Your task to perform on an android device: turn off improve location accuracy Image 0: 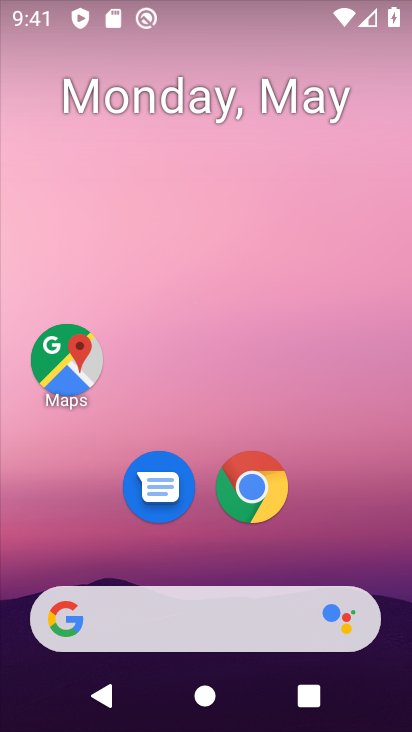
Step 0: drag from (291, 540) to (287, 0)
Your task to perform on an android device: turn off improve location accuracy Image 1: 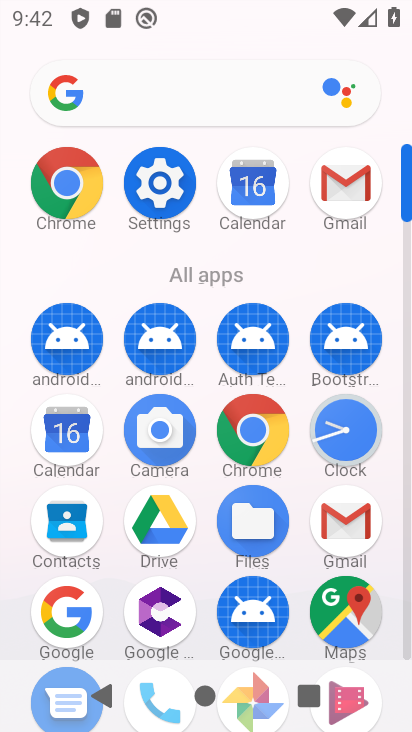
Step 1: click (155, 199)
Your task to perform on an android device: turn off improve location accuracy Image 2: 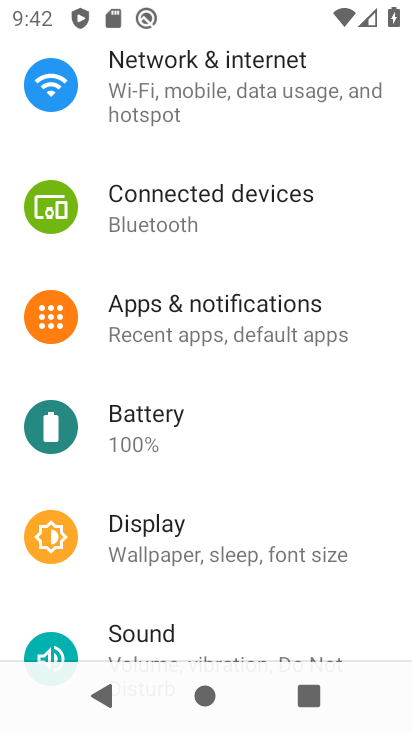
Step 2: drag from (189, 580) to (165, 414)
Your task to perform on an android device: turn off improve location accuracy Image 3: 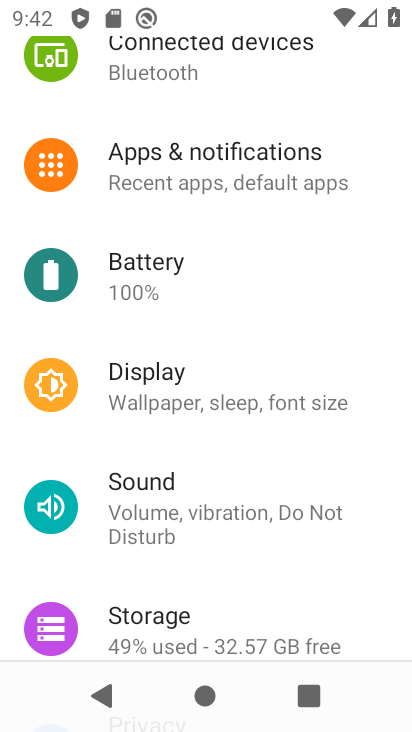
Step 3: drag from (165, 544) to (180, 348)
Your task to perform on an android device: turn off improve location accuracy Image 4: 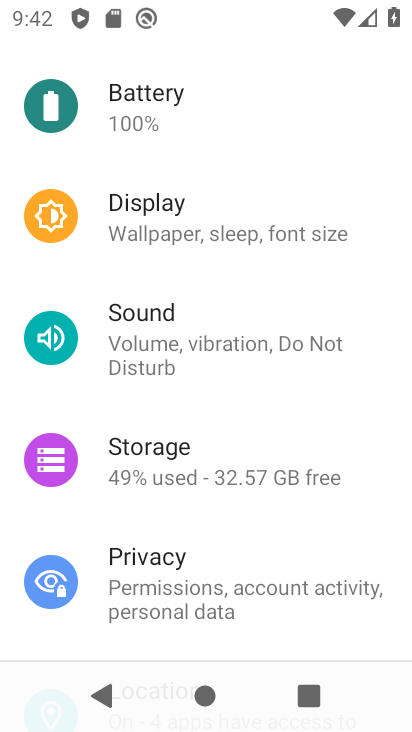
Step 4: drag from (140, 604) to (152, 331)
Your task to perform on an android device: turn off improve location accuracy Image 5: 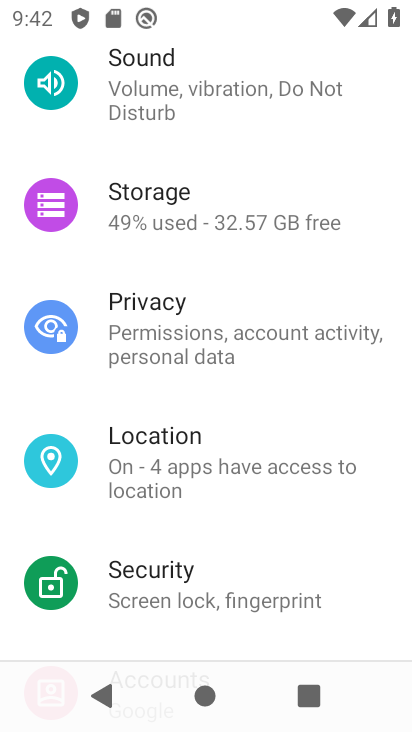
Step 5: click (157, 452)
Your task to perform on an android device: turn off improve location accuracy Image 6: 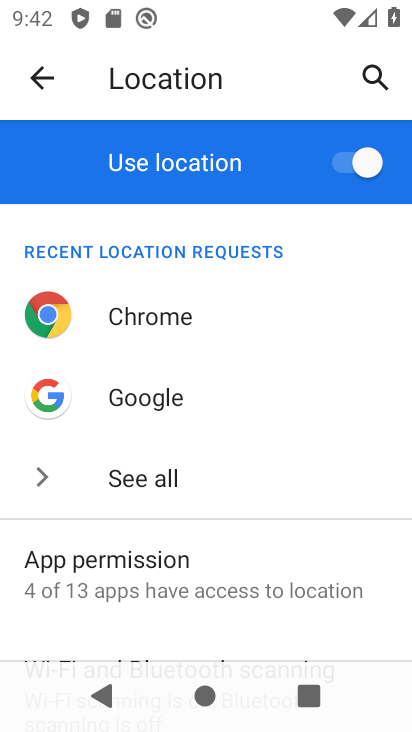
Step 6: drag from (146, 601) to (152, 215)
Your task to perform on an android device: turn off improve location accuracy Image 7: 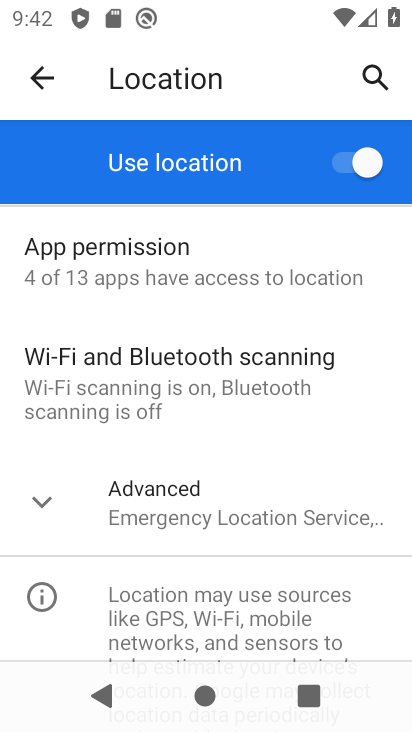
Step 7: click (180, 506)
Your task to perform on an android device: turn off improve location accuracy Image 8: 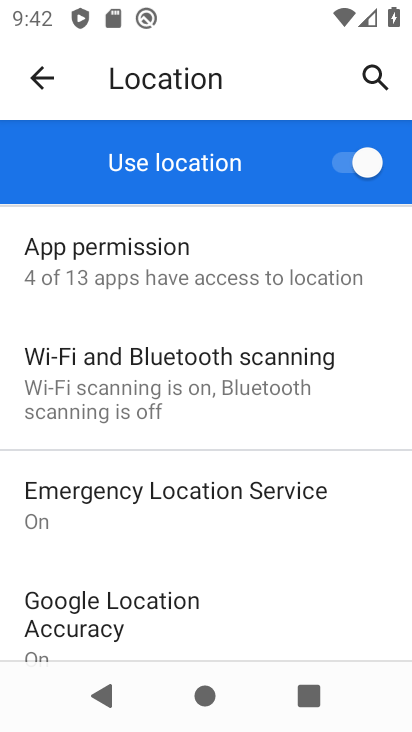
Step 8: drag from (188, 603) to (205, 384)
Your task to perform on an android device: turn off improve location accuracy Image 9: 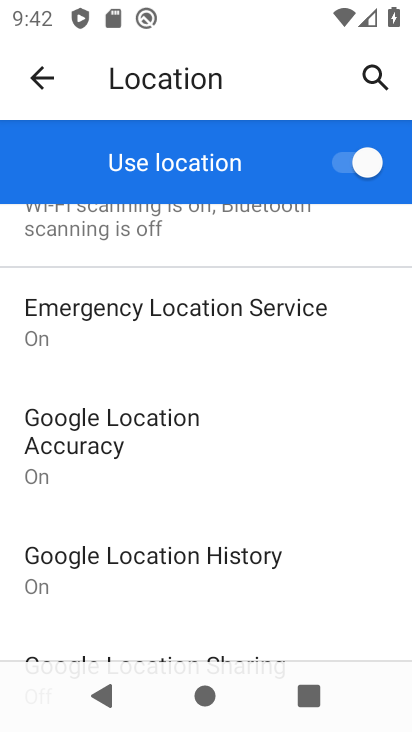
Step 9: click (202, 450)
Your task to perform on an android device: turn off improve location accuracy Image 10: 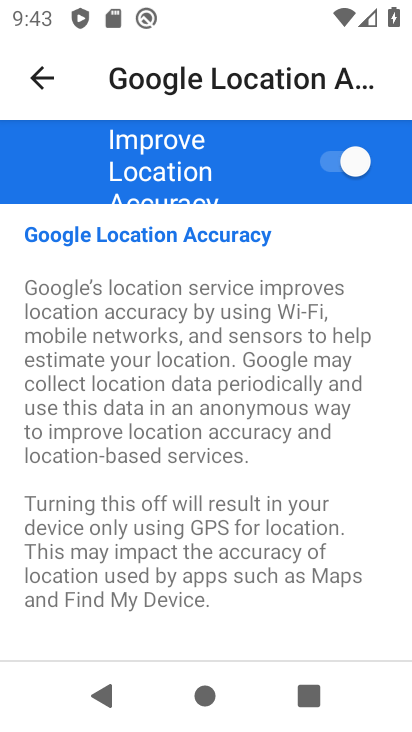
Step 10: click (323, 160)
Your task to perform on an android device: turn off improve location accuracy Image 11: 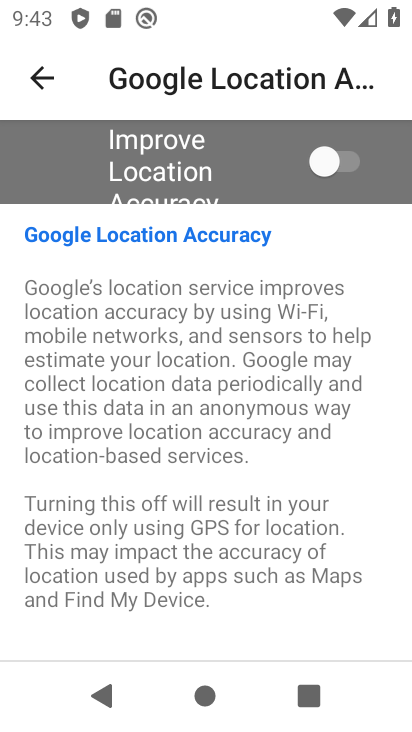
Step 11: task complete